Your task to perform on an android device: Open the phone app and click the voicemail tab. Image 0: 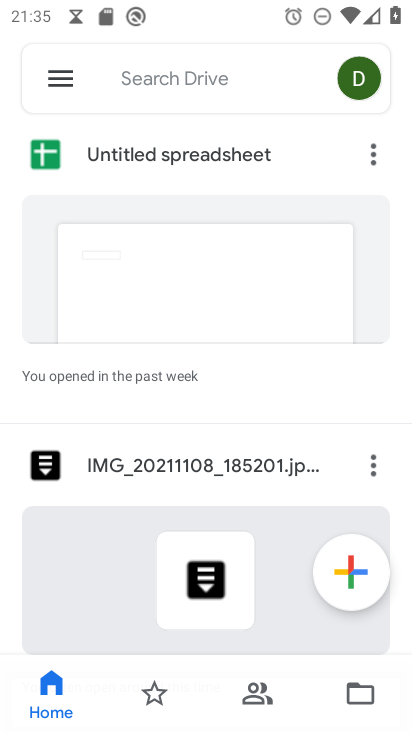
Step 0: press home button
Your task to perform on an android device: Open the phone app and click the voicemail tab. Image 1: 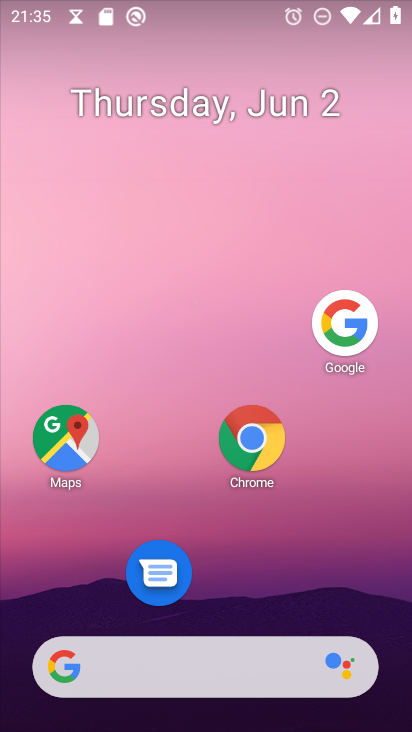
Step 1: drag from (165, 589) to (321, 74)
Your task to perform on an android device: Open the phone app and click the voicemail tab. Image 2: 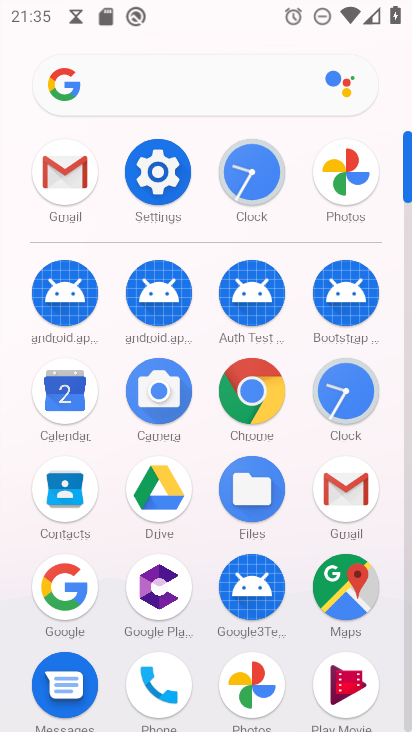
Step 2: click (159, 684)
Your task to perform on an android device: Open the phone app and click the voicemail tab. Image 3: 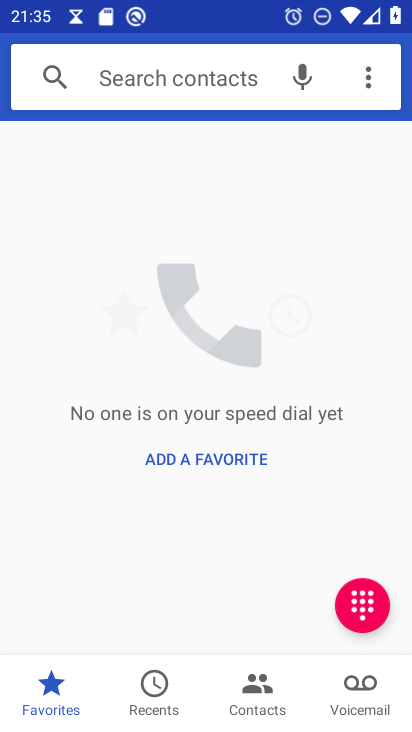
Step 3: click (361, 697)
Your task to perform on an android device: Open the phone app and click the voicemail tab. Image 4: 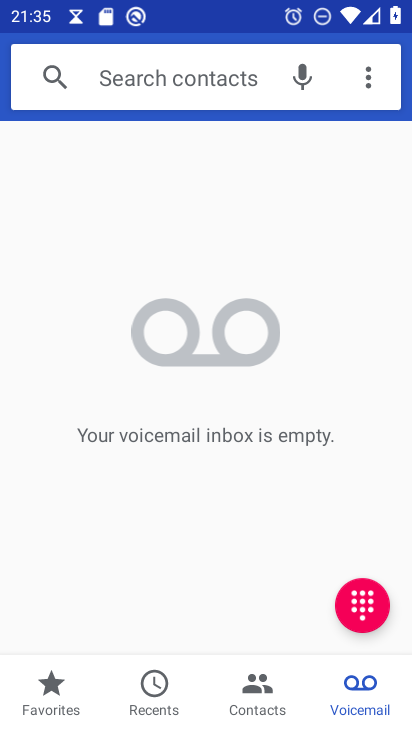
Step 4: task complete